Your task to perform on an android device: snooze an email in the gmail app Image 0: 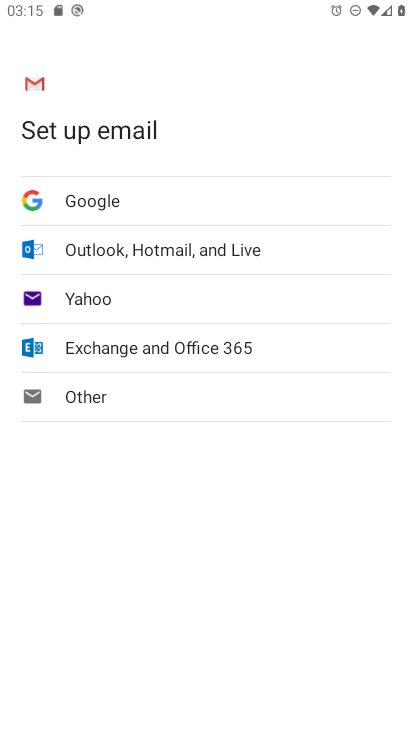
Step 0: press home button
Your task to perform on an android device: snooze an email in the gmail app Image 1: 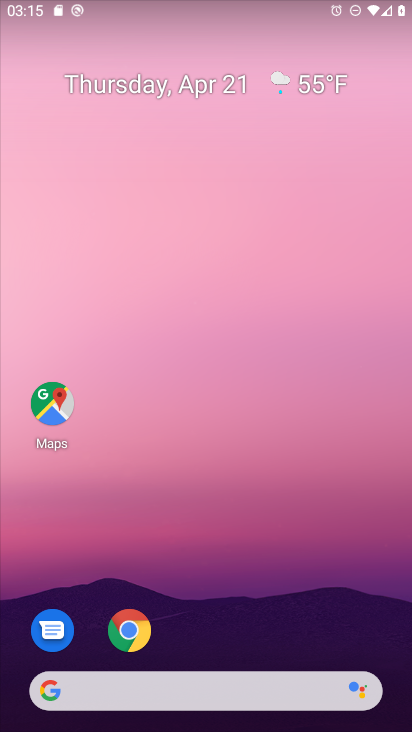
Step 1: drag from (225, 574) to (221, 36)
Your task to perform on an android device: snooze an email in the gmail app Image 2: 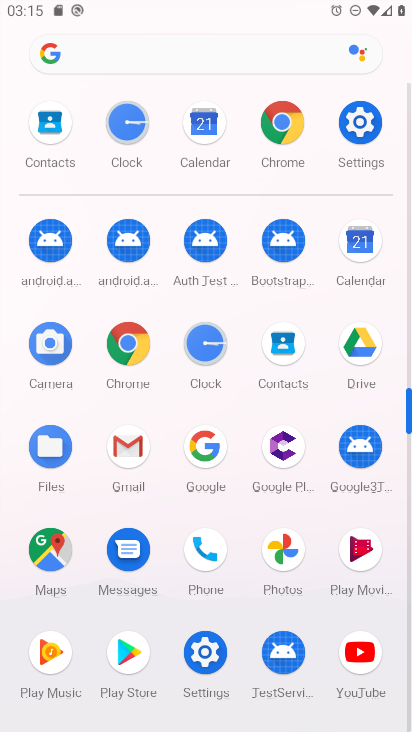
Step 2: click (136, 441)
Your task to perform on an android device: snooze an email in the gmail app Image 3: 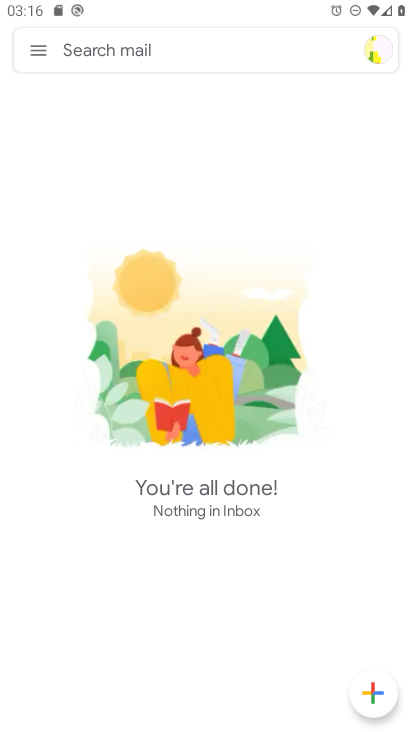
Step 3: click (29, 39)
Your task to perform on an android device: snooze an email in the gmail app Image 4: 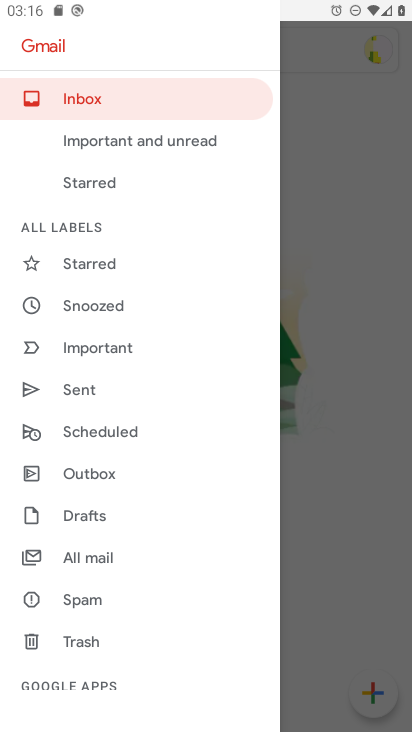
Step 4: click (104, 567)
Your task to perform on an android device: snooze an email in the gmail app Image 5: 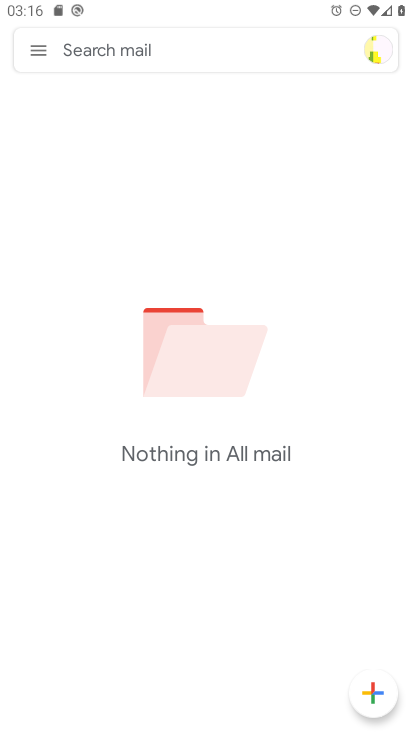
Step 5: task complete